Your task to perform on an android device: add a label to a message in the gmail app Image 0: 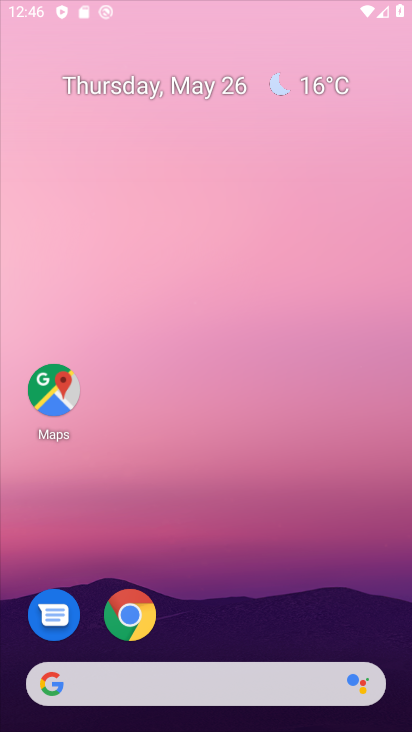
Step 0: click (271, 110)
Your task to perform on an android device: add a label to a message in the gmail app Image 1: 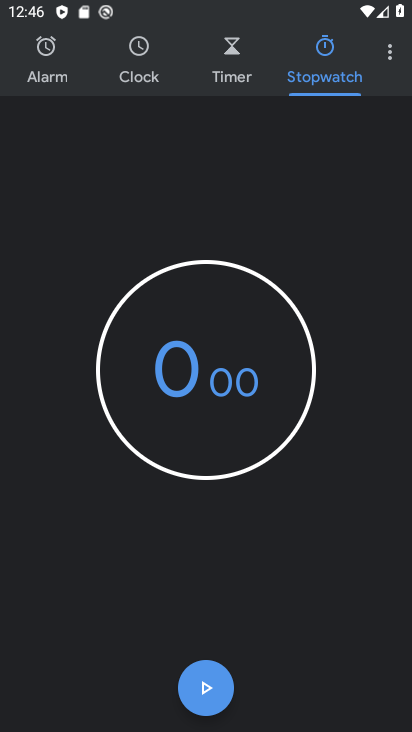
Step 1: press home button
Your task to perform on an android device: add a label to a message in the gmail app Image 2: 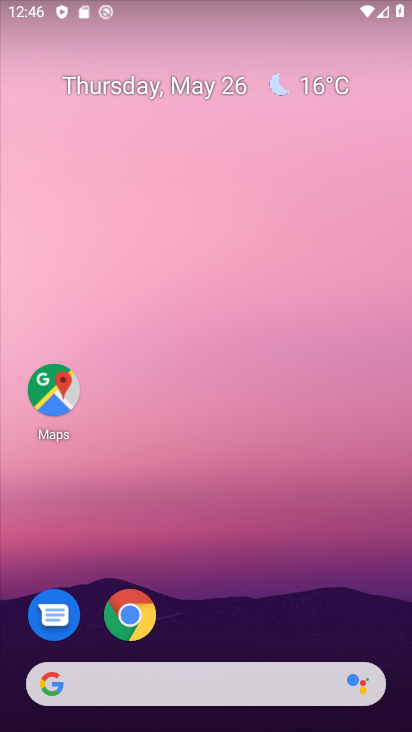
Step 2: drag from (196, 632) to (385, 24)
Your task to perform on an android device: add a label to a message in the gmail app Image 3: 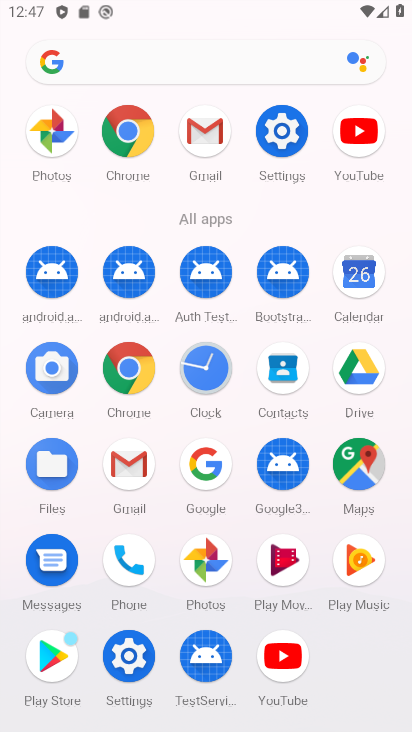
Step 3: click (144, 486)
Your task to perform on an android device: add a label to a message in the gmail app Image 4: 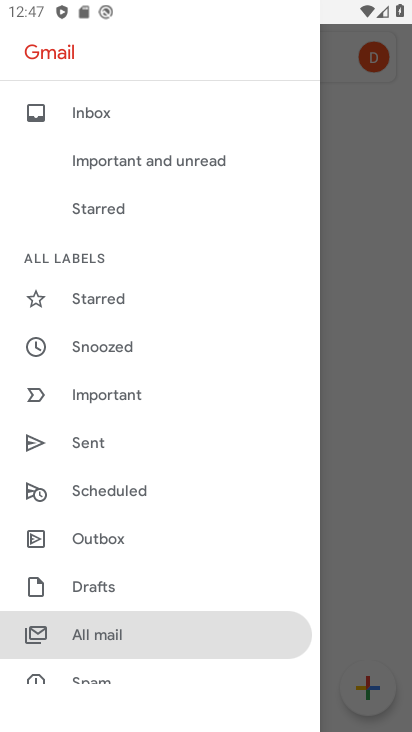
Step 4: task complete